Your task to perform on an android device: Open settings Image 0: 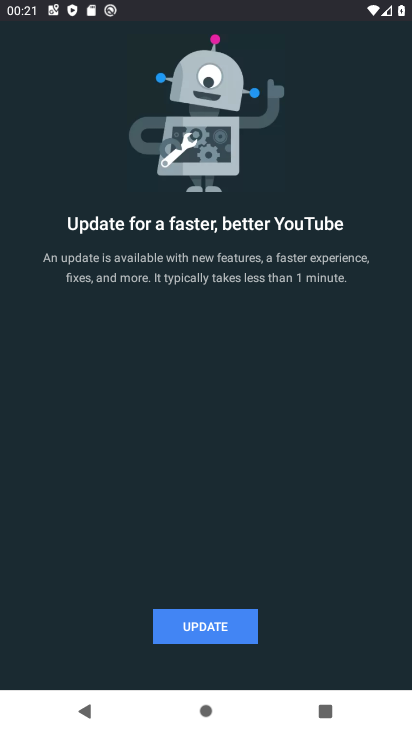
Step 0: press home button
Your task to perform on an android device: Open settings Image 1: 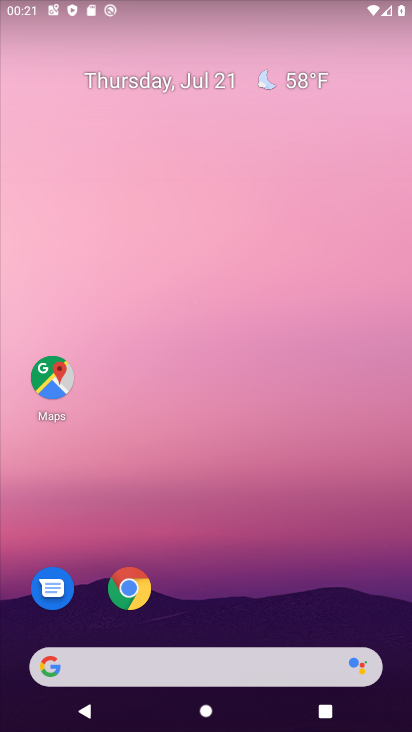
Step 1: drag from (232, 573) to (274, 29)
Your task to perform on an android device: Open settings Image 2: 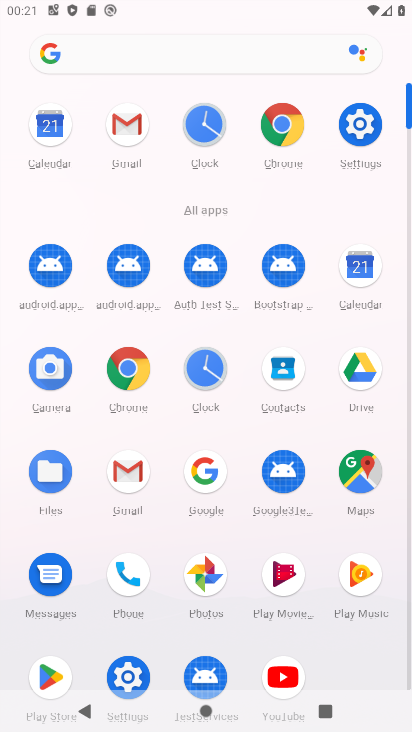
Step 2: click (119, 674)
Your task to perform on an android device: Open settings Image 3: 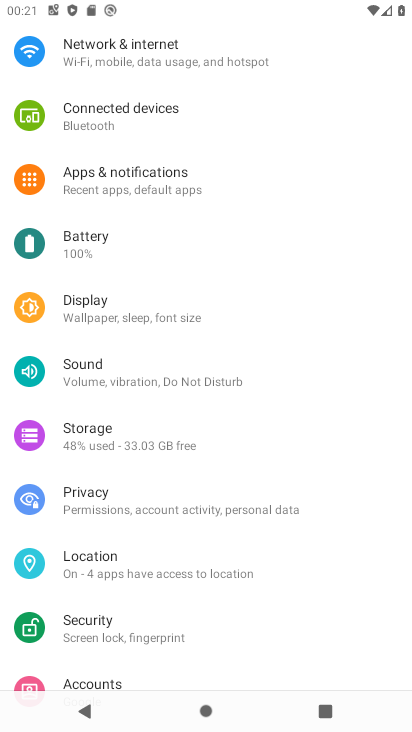
Step 3: task complete